Your task to perform on an android device: Open maps Image 0: 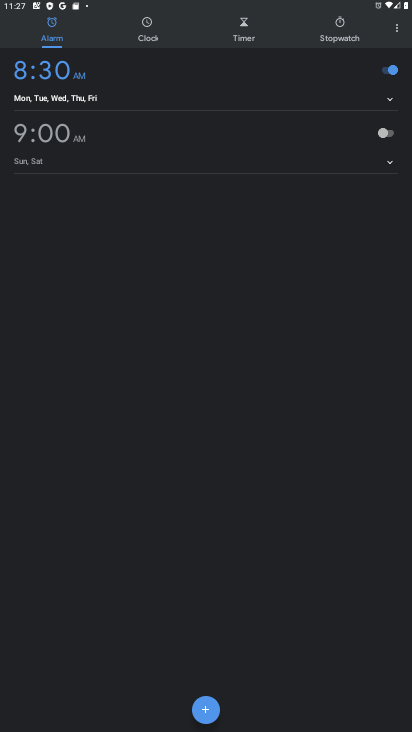
Step 0: press home button
Your task to perform on an android device: Open maps Image 1: 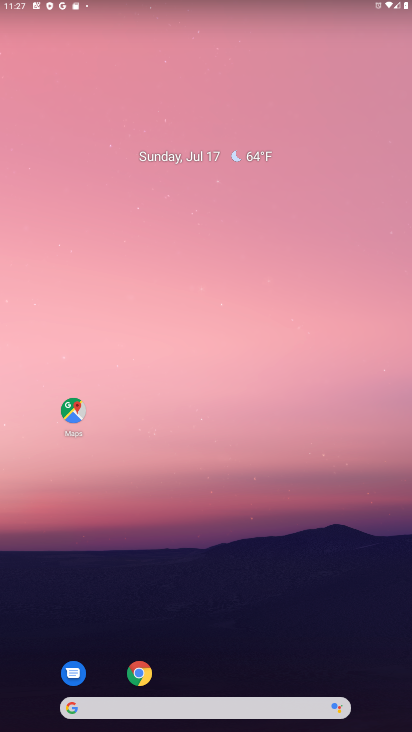
Step 1: click (68, 411)
Your task to perform on an android device: Open maps Image 2: 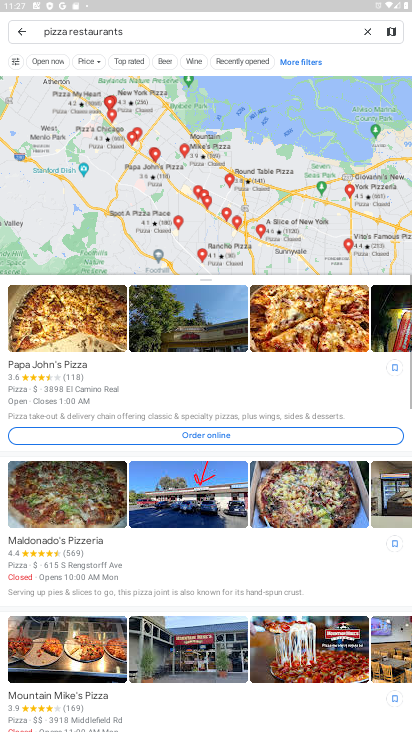
Step 2: task complete